Your task to perform on an android device: Is it going to rain this weekend? Image 0: 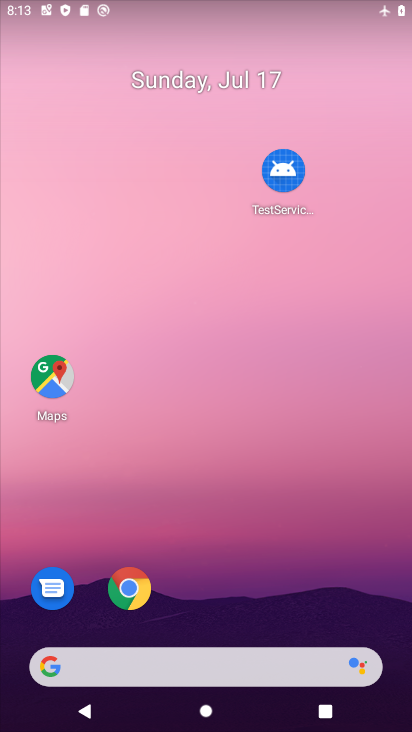
Step 0: drag from (172, 670) to (252, 204)
Your task to perform on an android device: Is it going to rain this weekend? Image 1: 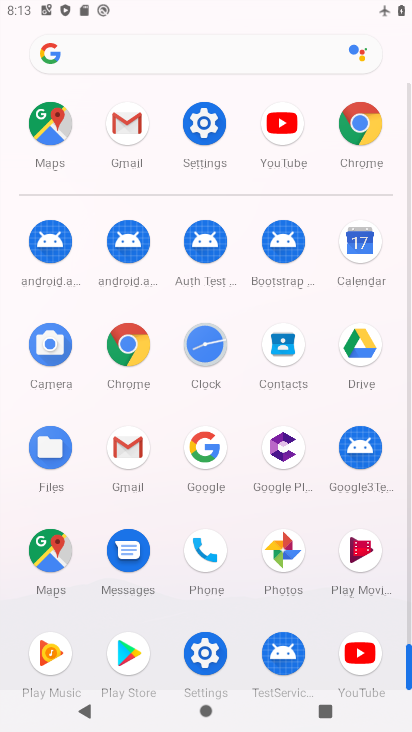
Step 1: drag from (246, 514) to (185, 245)
Your task to perform on an android device: Is it going to rain this weekend? Image 2: 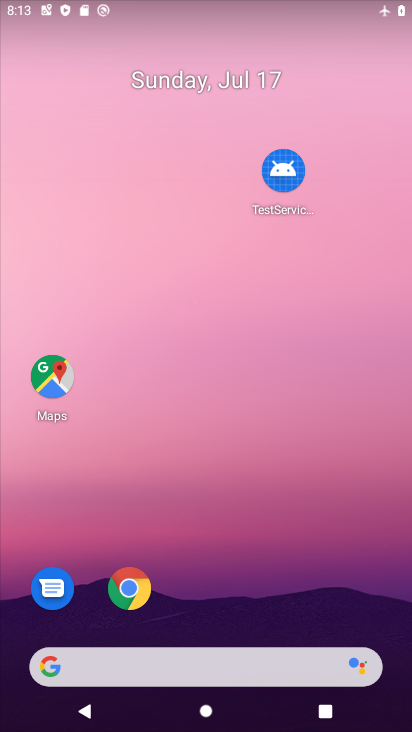
Step 2: drag from (187, 660) to (200, 161)
Your task to perform on an android device: Is it going to rain this weekend? Image 3: 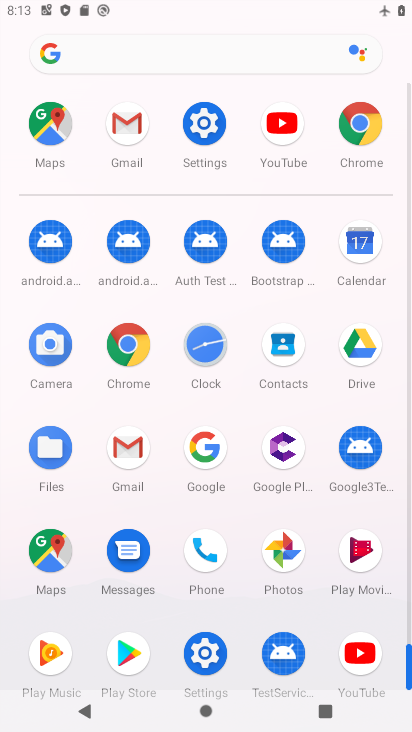
Step 3: click (228, 218)
Your task to perform on an android device: Is it going to rain this weekend? Image 4: 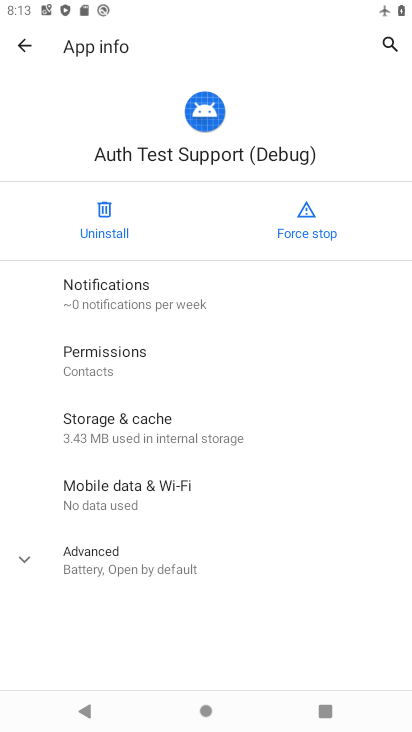
Step 4: press home button
Your task to perform on an android device: Is it going to rain this weekend? Image 5: 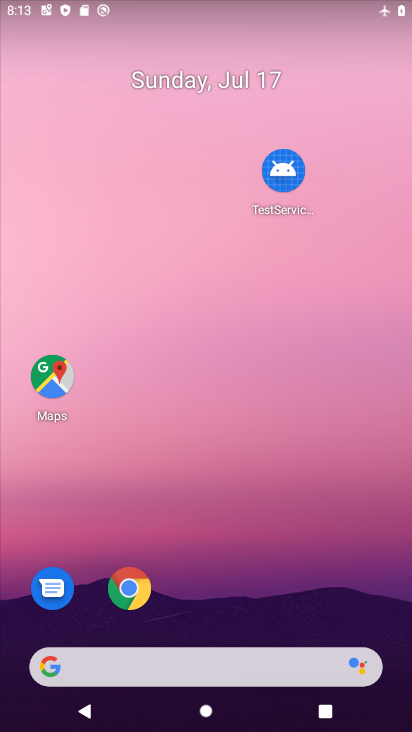
Step 5: drag from (250, 690) to (309, 170)
Your task to perform on an android device: Is it going to rain this weekend? Image 6: 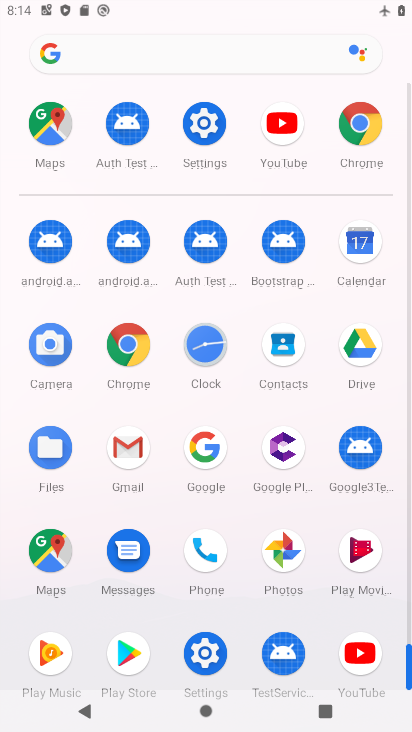
Step 6: click (212, 463)
Your task to perform on an android device: Is it going to rain this weekend? Image 7: 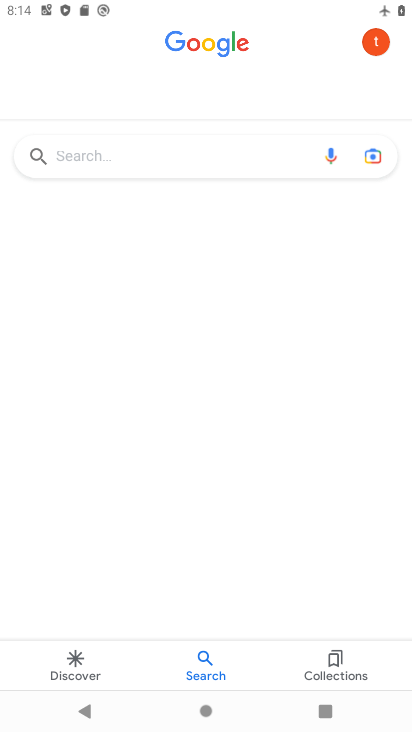
Step 7: click (175, 154)
Your task to perform on an android device: Is it going to rain this weekend? Image 8: 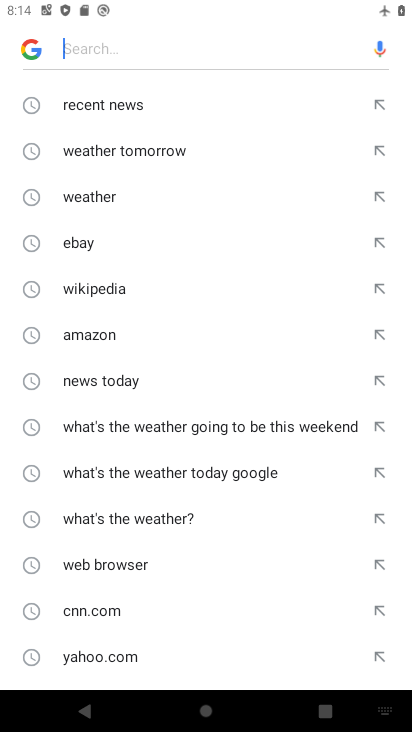
Step 8: click (141, 188)
Your task to perform on an android device: Is it going to rain this weekend? Image 9: 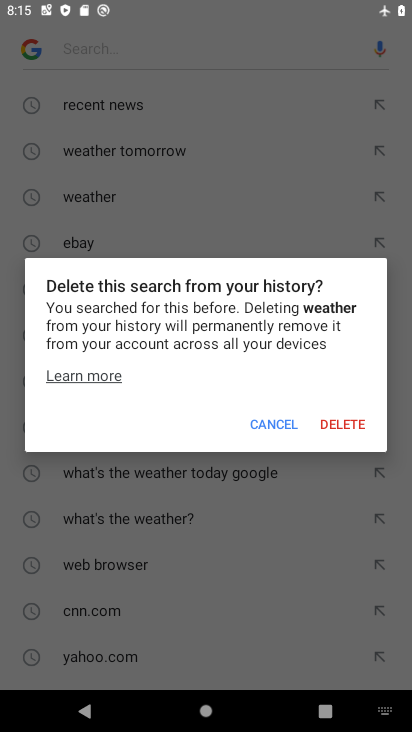
Step 9: click (278, 425)
Your task to perform on an android device: Is it going to rain this weekend? Image 10: 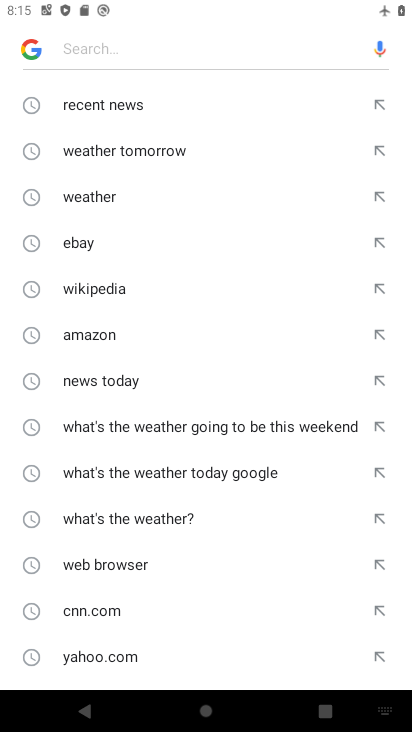
Step 10: click (100, 196)
Your task to perform on an android device: Is it going to rain this weekend? Image 11: 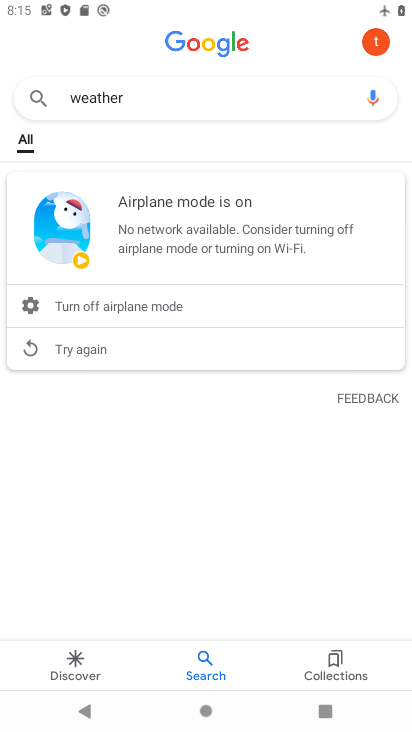
Step 11: task complete